Your task to perform on an android device: check storage Image 0: 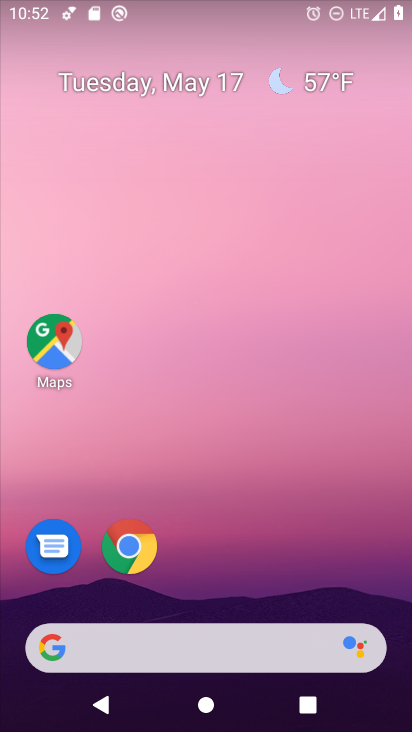
Step 0: drag from (281, 587) to (329, 20)
Your task to perform on an android device: check storage Image 1: 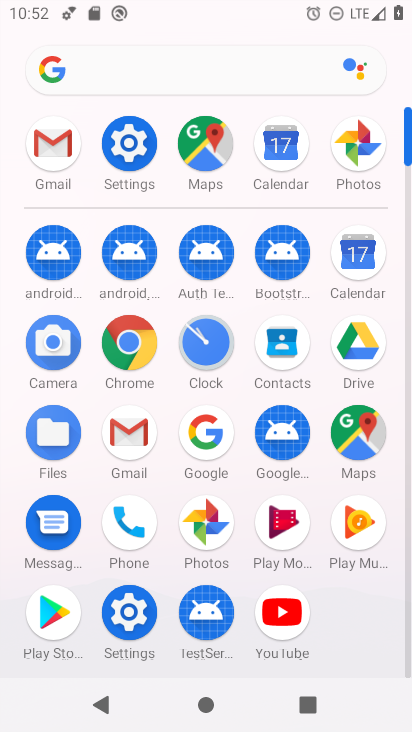
Step 1: click (120, 153)
Your task to perform on an android device: check storage Image 2: 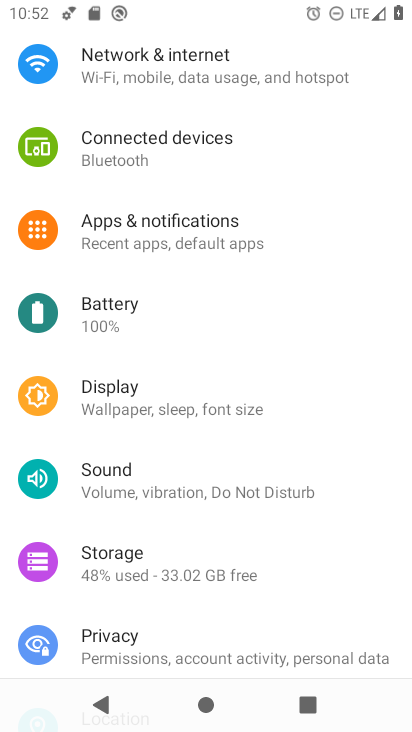
Step 2: click (125, 568)
Your task to perform on an android device: check storage Image 3: 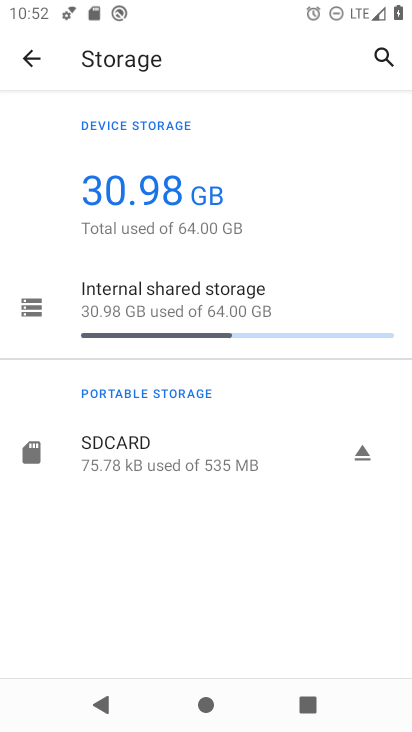
Step 3: click (146, 304)
Your task to perform on an android device: check storage Image 4: 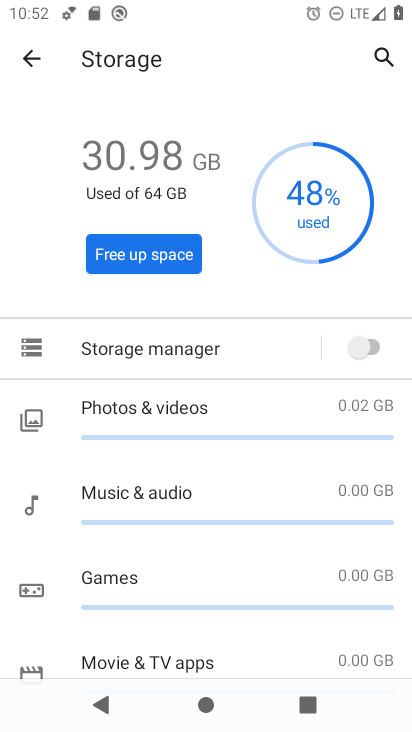
Step 4: task complete